Your task to perform on an android device: Go to location settings Image 0: 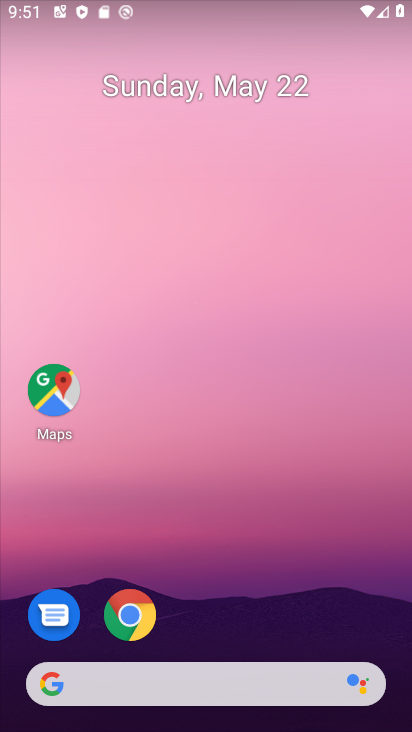
Step 0: drag from (269, 532) to (247, 15)
Your task to perform on an android device: Go to location settings Image 1: 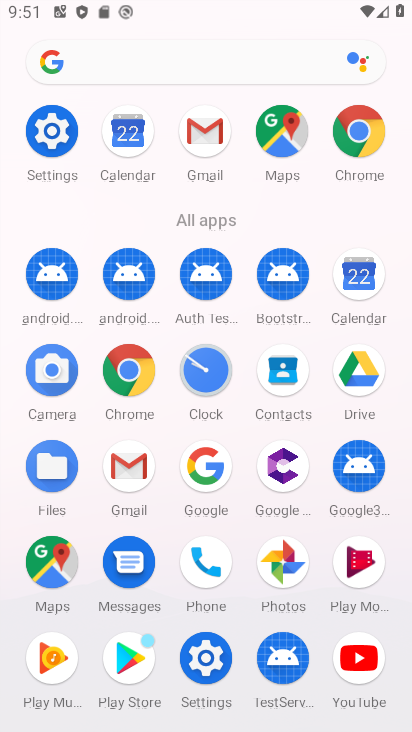
Step 1: click (52, 121)
Your task to perform on an android device: Go to location settings Image 2: 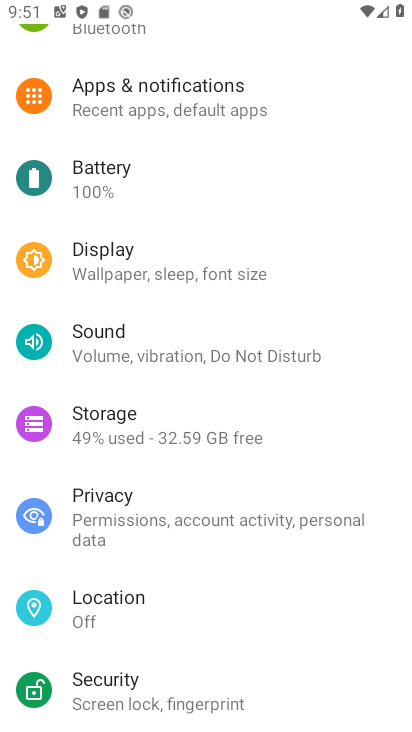
Step 2: click (144, 595)
Your task to perform on an android device: Go to location settings Image 3: 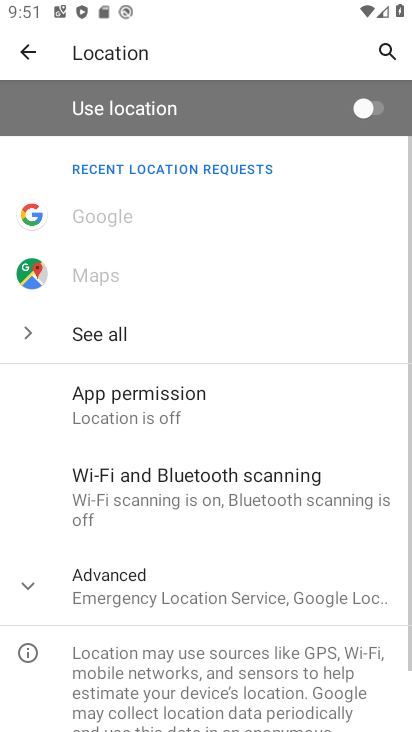
Step 3: task complete